Your task to perform on an android device: turn on airplane mode Image 0: 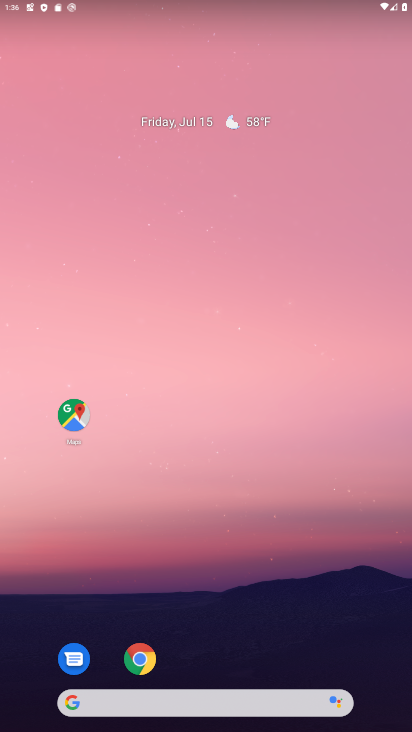
Step 0: drag from (249, 626) to (186, 195)
Your task to perform on an android device: turn on airplane mode Image 1: 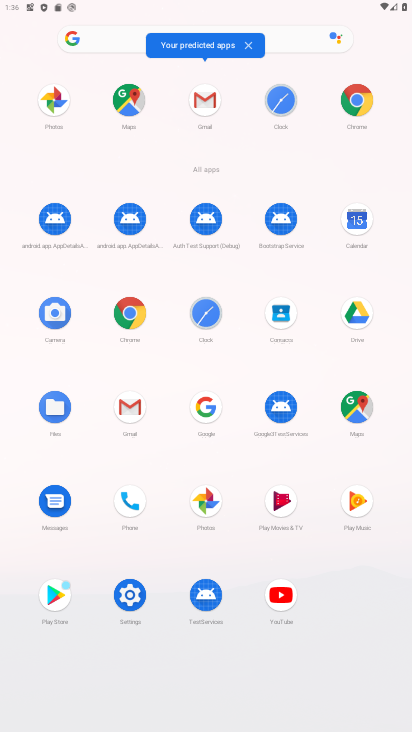
Step 1: click (121, 599)
Your task to perform on an android device: turn on airplane mode Image 2: 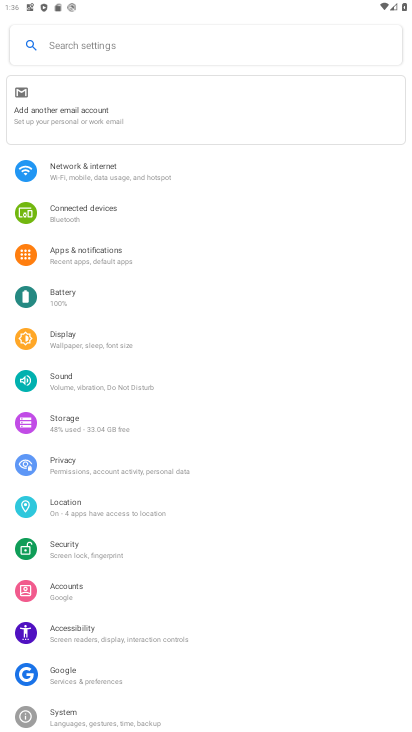
Step 2: click (184, 176)
Your task to perform on an android device: turn on airplane mode Image 3: 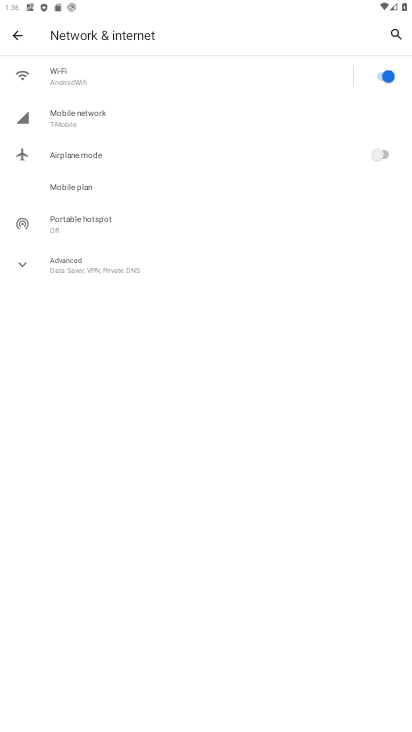
Step 3: click (375, 165)
Your task to perform on an android device: turn on airplane mode Image 4: 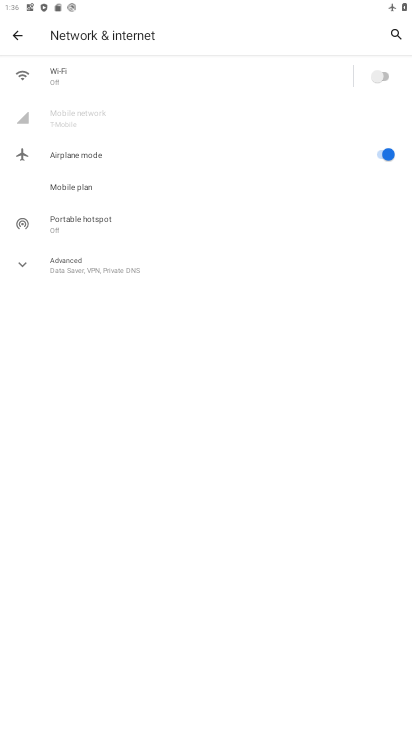
Step 4: task complete